Your task to perform on an android device: Open Youtube and go to the subscriptions tab Image 0: 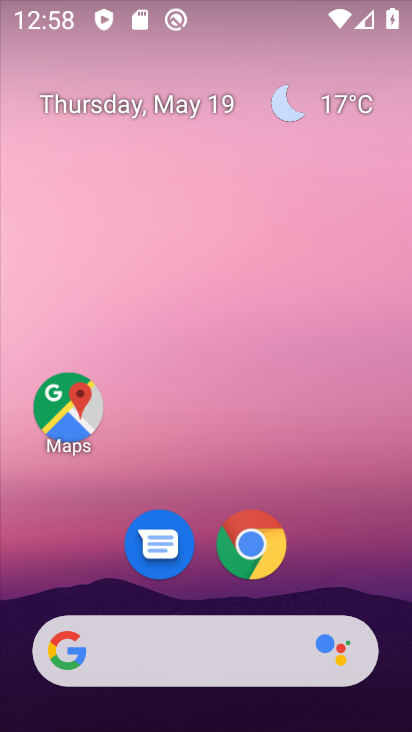
Step 0: drag from (219, 676) to (224, 0)
Your task to perform on an android device: Open Youtube and go to the subscriptions tab Image 1: 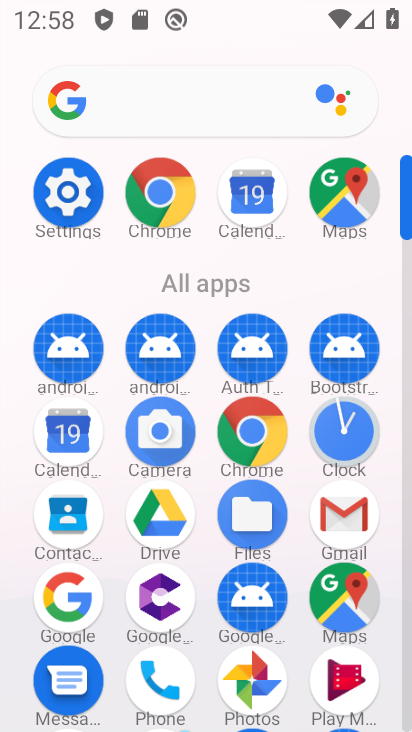
Step 1: drag from (301, 643) to (259, 200)
Your task to perform on an android device: Open Youtube and go to the subscriptions tab Image 2: 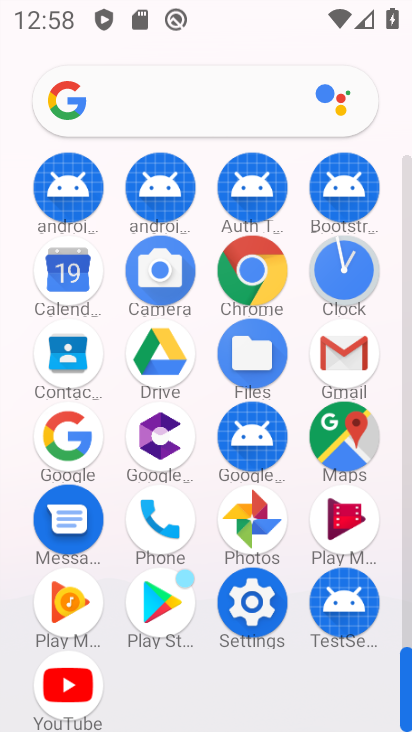
Step 2: click (60, 681)
Your task to perform on an android device: Open Youtube and go to the subscriptions tab Image 3: 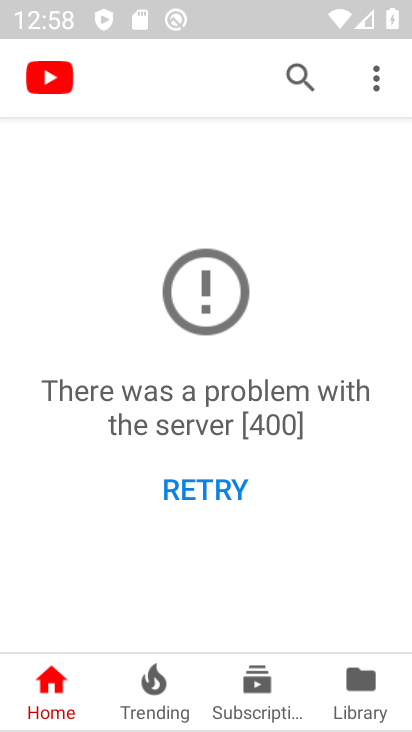
Step 3: click (354, 687)
Your task to perform on an android device: Open Youtube and go to the subscriptions tab Image 4: 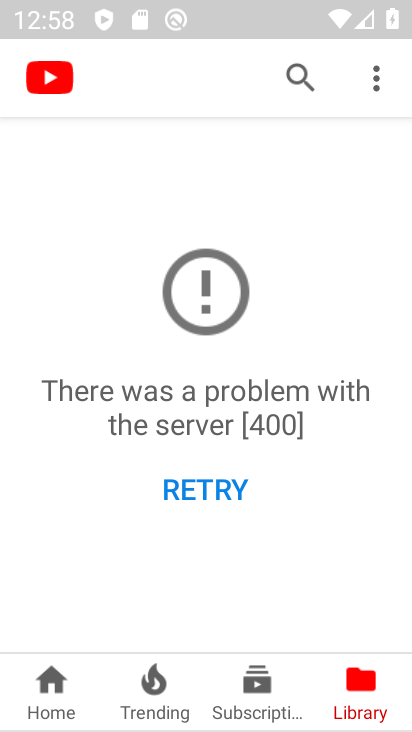
Step 4: task complete